Your task to perform on an android device: Open eBay Image 0: 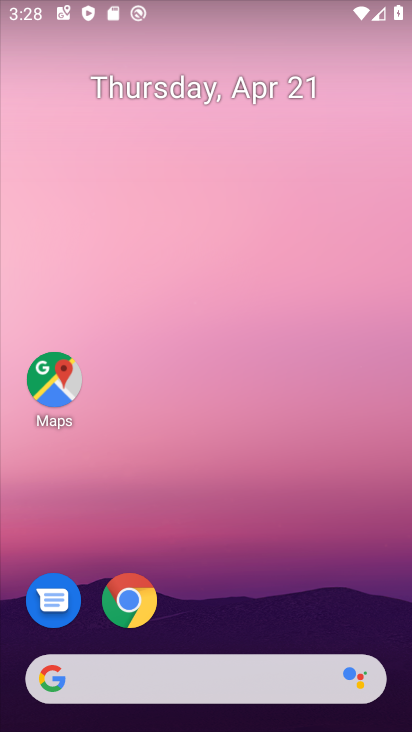
Step 0: drag from (224, 631) to (213, 11)
Your task to perform on an android device: Open eBay Image 1: 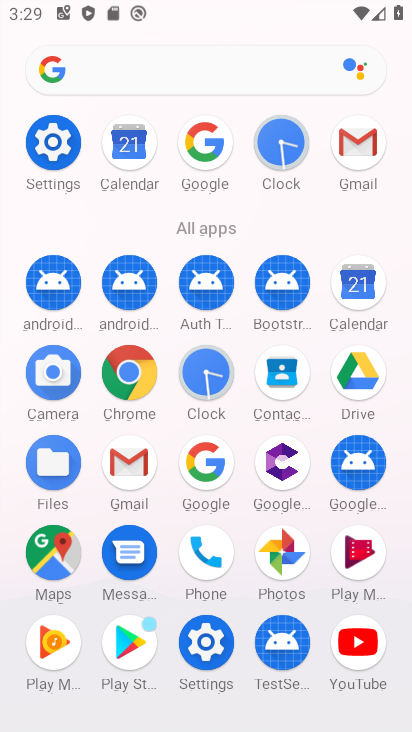
Step 1: click (203, 144)
Your task to perform on an android device: Open eBay Image 2: 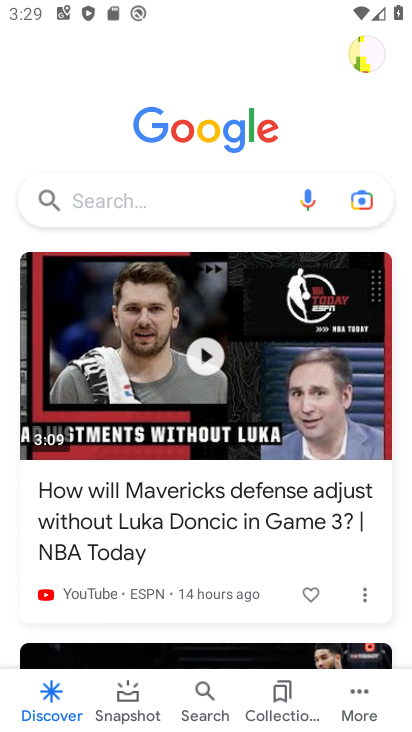
Step 2: click (175, 199)
Your task to perform on an android device: Open eBay Image 3: 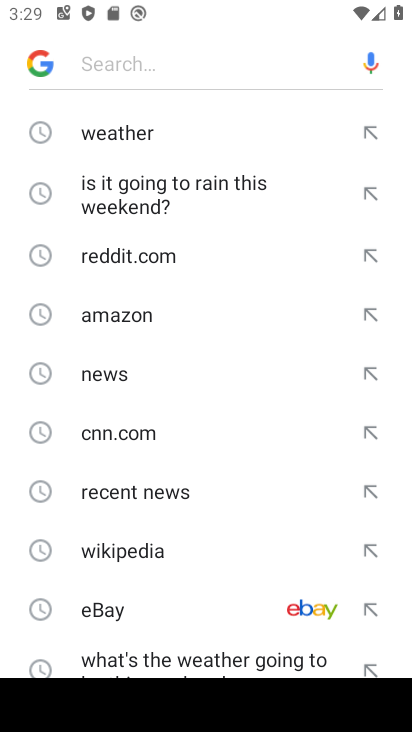
Step 3: click (108, 611)
Your task to perform on an android device: Open eBay Image 4: 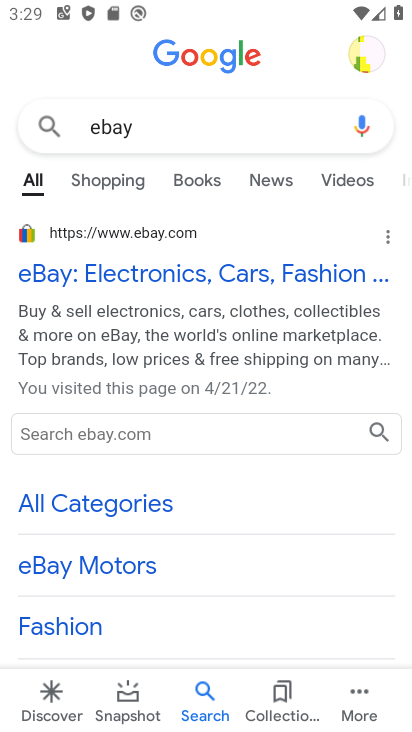
Step 4: task complete